Your task to perform on an android device: What's the weather going to be tomorrow? Image 0: 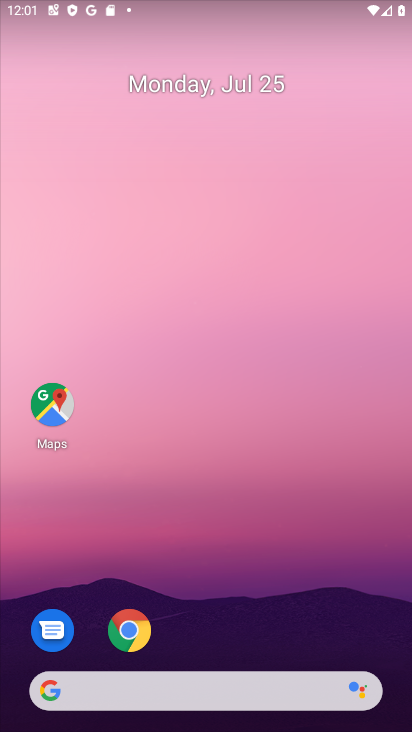
Step 0: press home button
Your task to perform on an android device: What's the weather going to be tomorrow? Image 1: 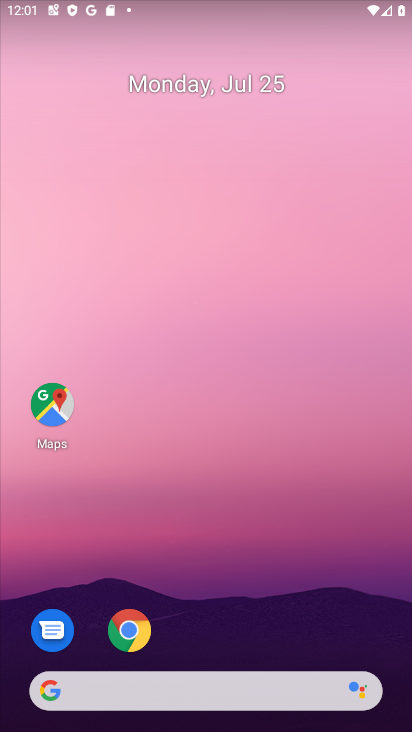
Step 1: click (122, 625)
Your task to perform on an android device: What's the weather going to be tomorrow? Image 2: 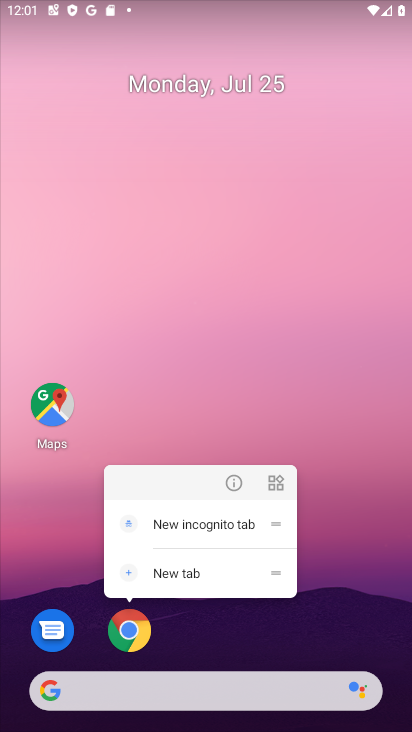
Step 2: click (133, 623)
Your task to perform on an android device: What's the weather going to be tomorrow? Image 3: 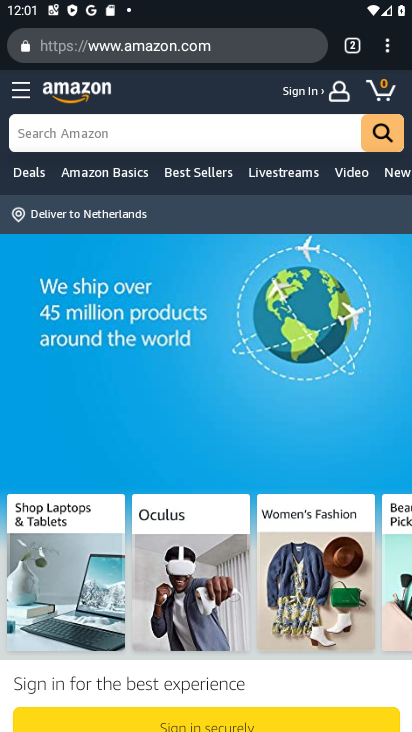
Step 3: click (56, 45)
Your task to perform on an android device: What's the weather going to be tomorrow? Image 4: 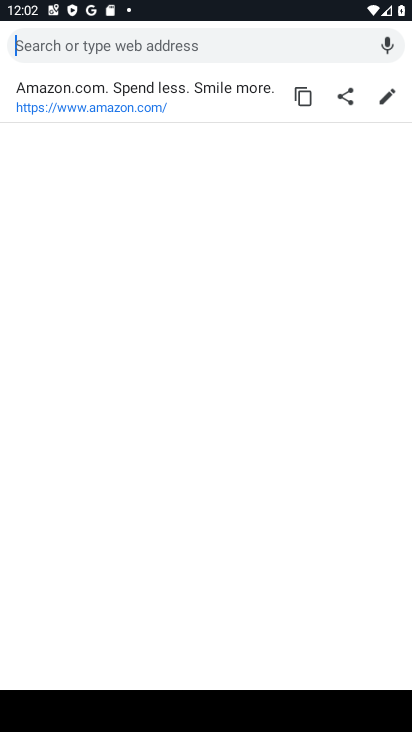
Step 4: type "What's the weather going to be tomorrow?"
Your task to perform on an android device: What's the weather going to be tomorrow? Image 5: 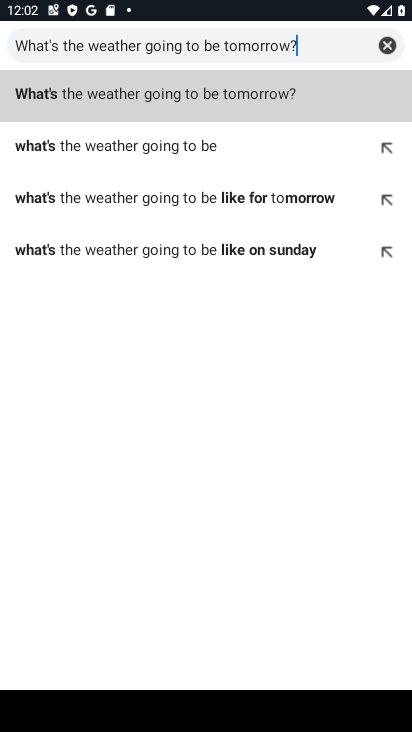
Step 5: type ""
Your task to perform on an android device: What's the weather going to be tomorrow? Image 6: 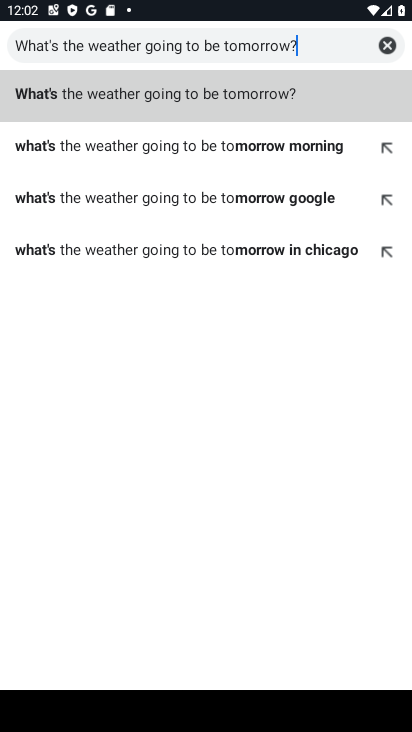
Step 6: click (174, 101)
Your task to perform on an android device: What's the weather going to be tomorrow? Image 7: 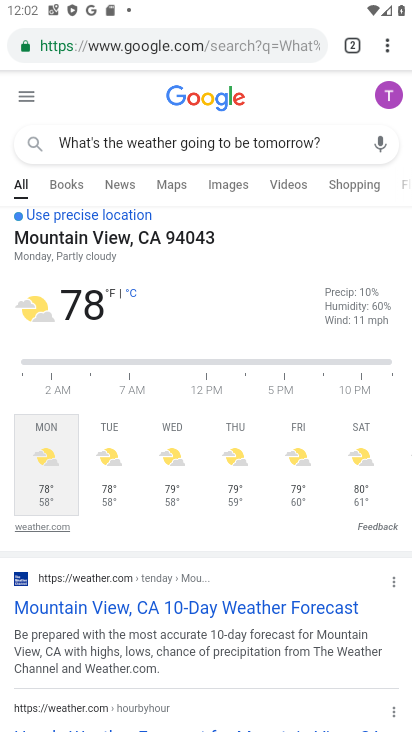
Step 7: task complete